Your task to perform on an android device: open chrome and create a bookmark for the current page Image 0: 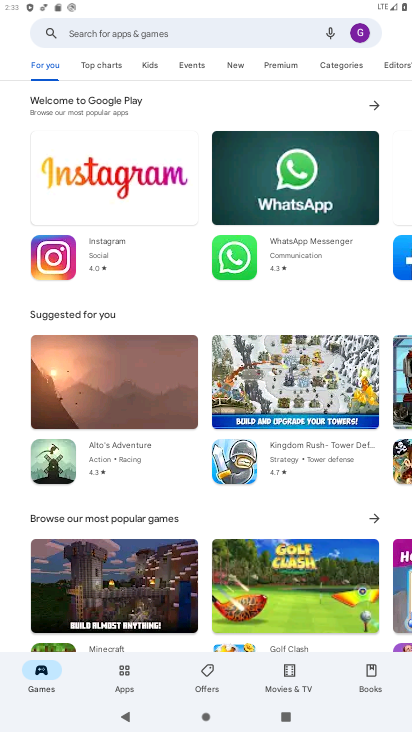
Step 0: press home button
Your task to perform on an android device: open chrome and create a bookmark for the current page Image 1: 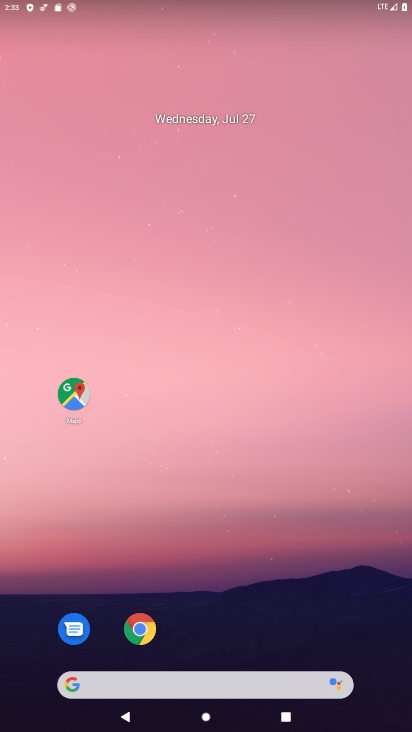
Step 1: click (142, 626)
Your task to perform on an android device: open chrome and create a bookmark for the current page Image 2: 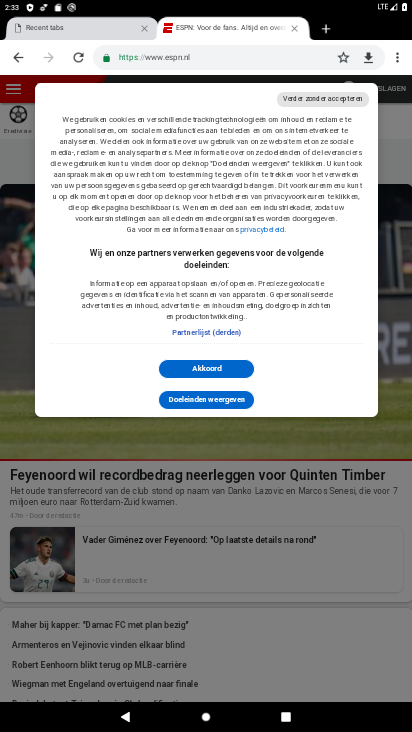
Step 2: click (343, 57)
Your task to perform on an android device: open chrome and create a bookmark for the current page Image 3: 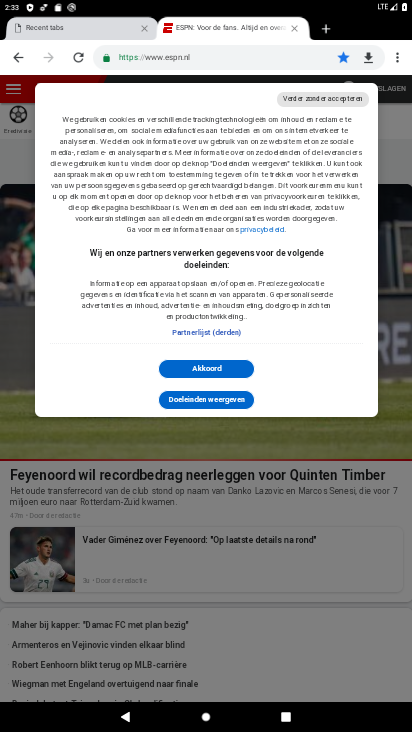
Step 3: task complete